Your task to perform on an android device: Open Google Maps and go to "Timeline" Image 0: 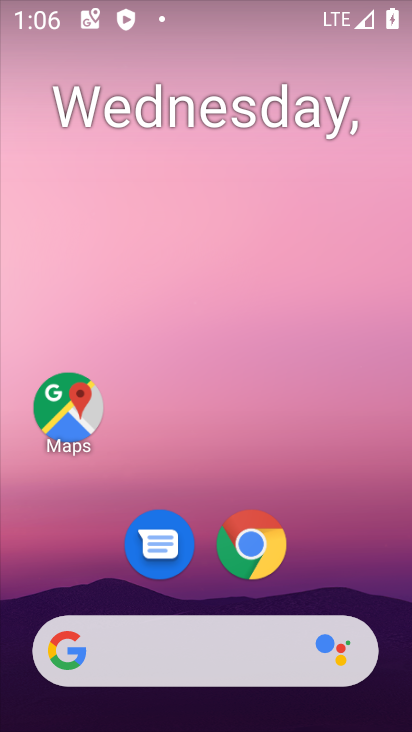
Step 0: drag from (395, 641) to (327, 46)
Your task to perform on an android device: Open Google Maps and go to "Timeline" Image 1: 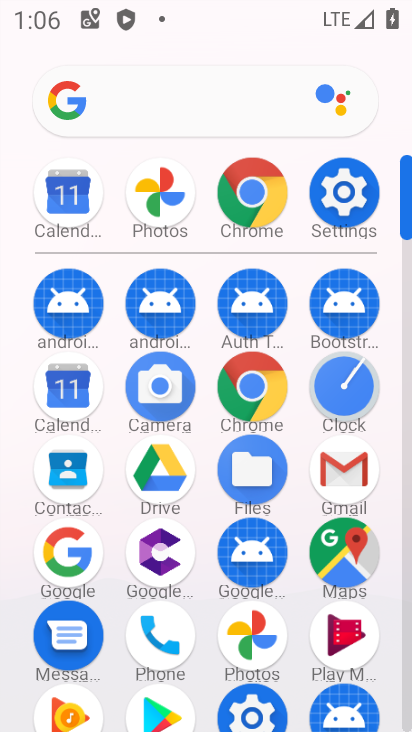
Step 1: click (343, 560)
Your task to perform on an android device: Open Google Maps and go to "Timeline" Image 2: 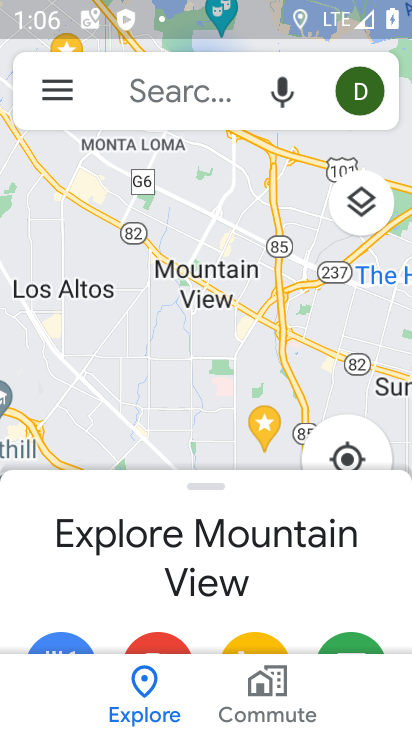
Step 2: click (52, 85)
Your task to perform on an android device: Open Google Maps and go to "Timeline" Image 3: 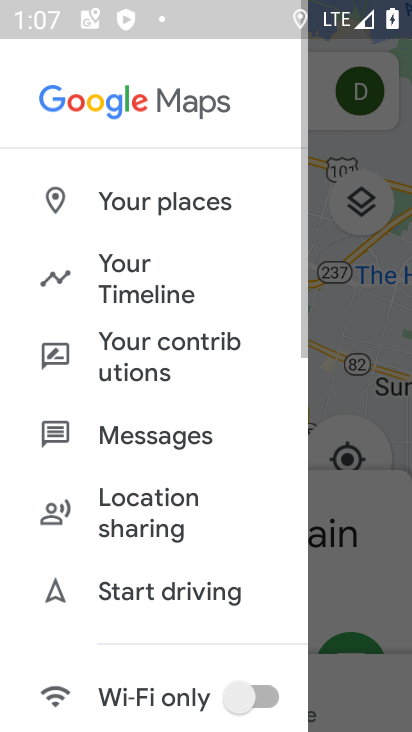
Step 3: click (180, 285)
Your task to perform on an android device: Open Google Maps and go to "Timeline" Image 4: 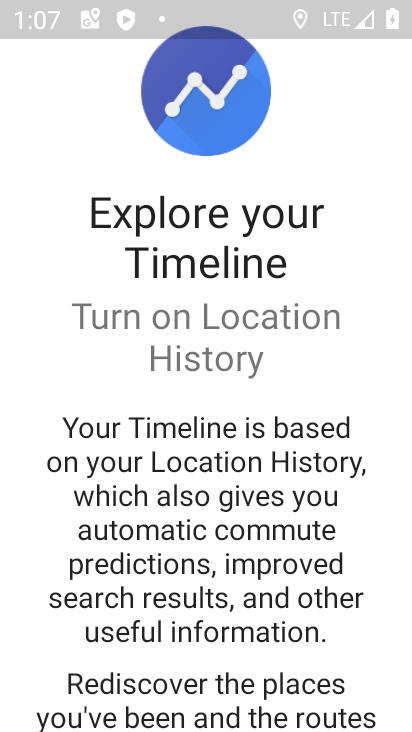
Step 4: task complete